Your task to perform on an android device: Open Android settings Image 0: 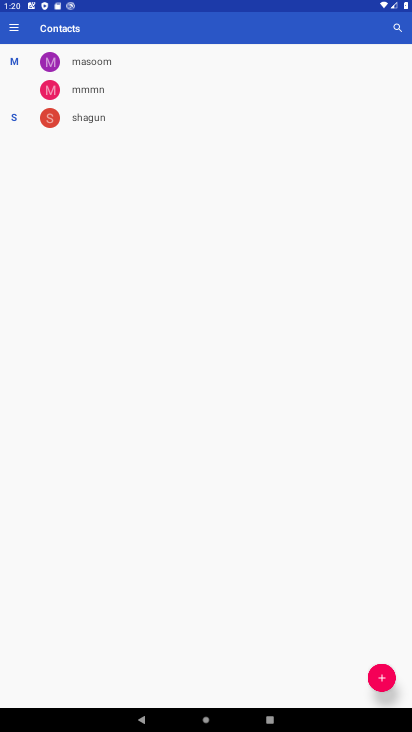
Step 0: press home button
Your task to perform on an android device: Open Android settings Image 1: 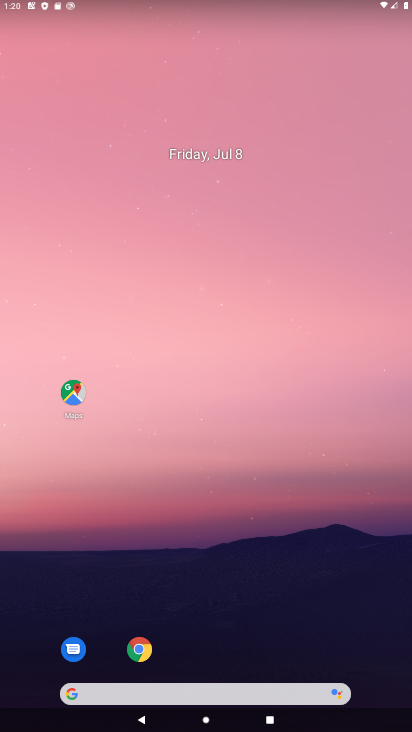
Step 1: drag from (38, 692) to (113, 297)
Your task to perform on an android device: Open Android settings Image 2: 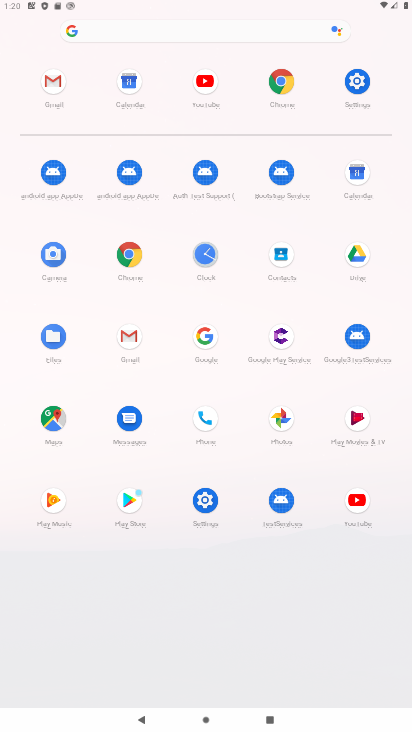
Step 2: click (200, 501)
Your task to perform on an android device: Open Android settings Image 3: 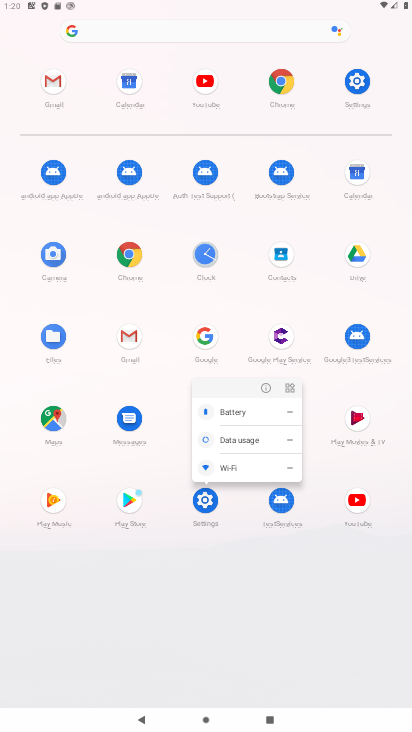
Step 3: click (217, 496)
Your task to perform on an android device: Open Android settings Image 4: 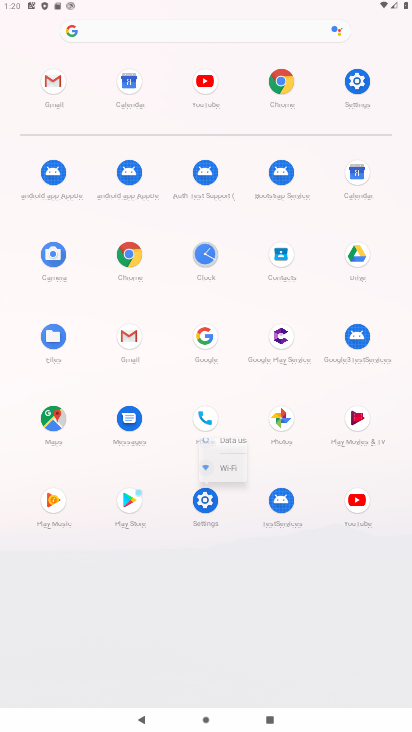
Step 4: click (217, 496)
Your task to perform on an android device: Open Android settings Image 5: 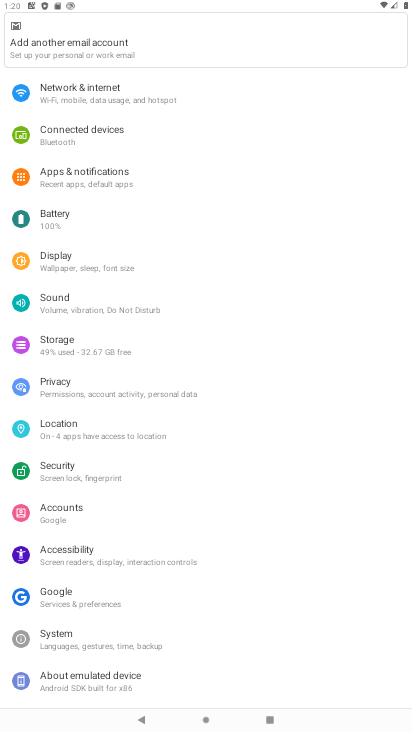
Step 5: click (73, 679)
Your task to perform on an android device: Open Android settings Image 6: 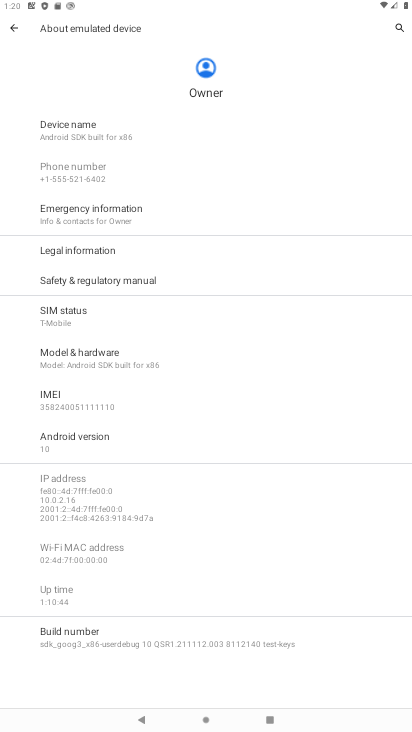
Step 6: task complete